Your task to perform on an android device: see tabs open on other devices in the chrome app Image 0: 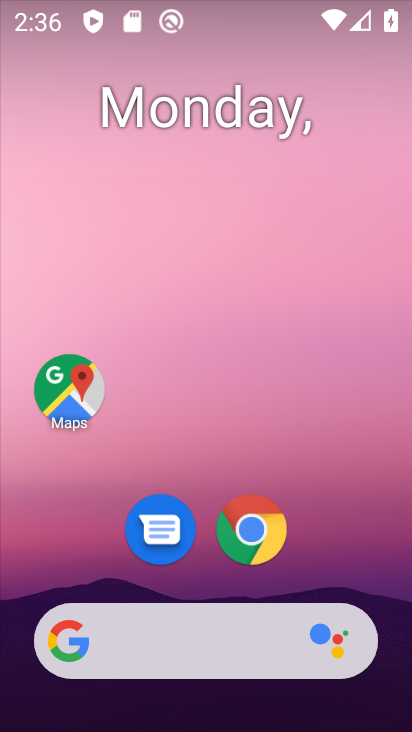
Step 0: press home button
Your task to perform on an android device: see tabs open on other devices in the chrome app Image 1: 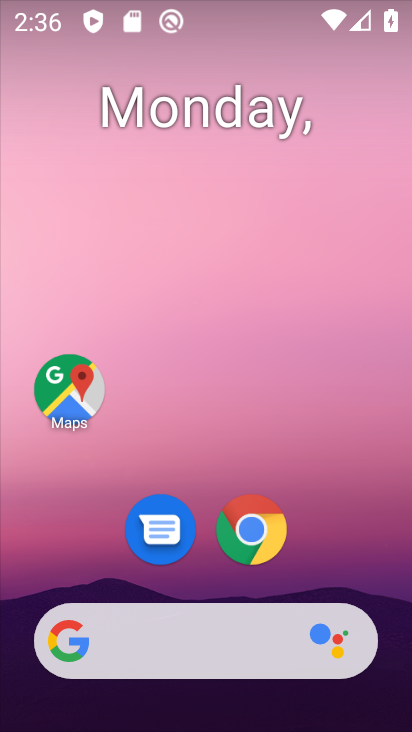
Step 1: drag from (367, 508) to (294, 115)
Your task to perform on an android device: see tabs open on other devices in the chrome app Image 2: 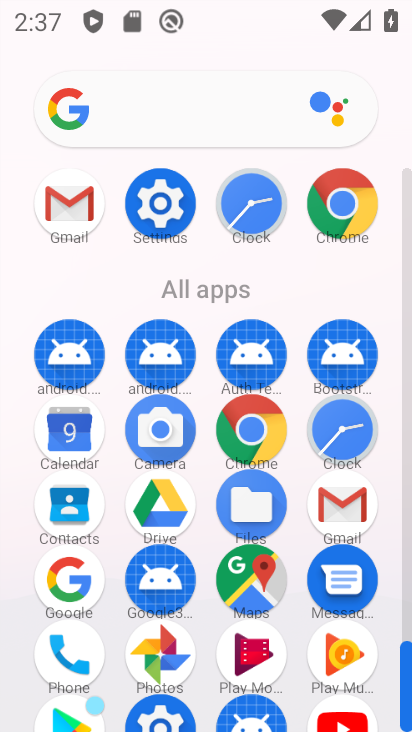
Step 2: click (245, 424)
Your task to perform on an android device: see tabs open on other devices in the chrome app Image 3: 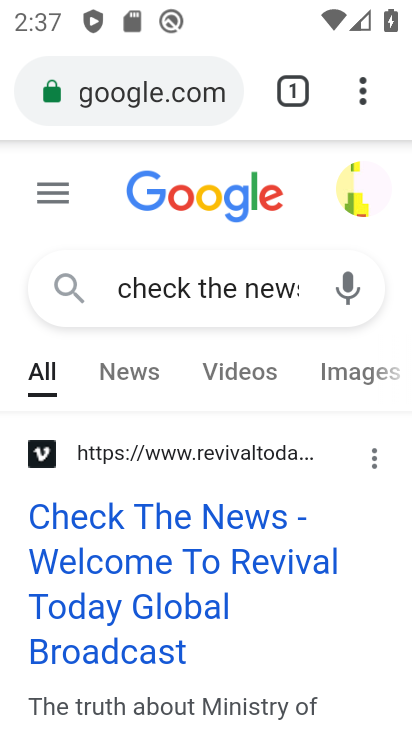
Step 3: click (299, 101)
Your task to perform on an android device: see tabs open on other devices in the chrome app Image 4: 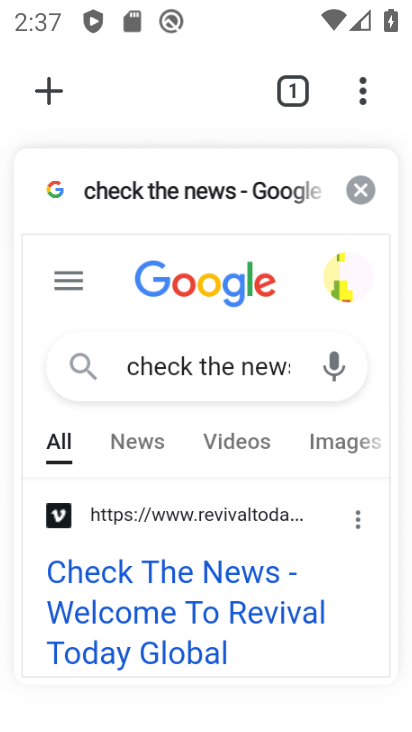
Step 4: task complete